Your task to perform on an android device: Open the calendar app, open the side menu, and click the "Day" option Image 0: 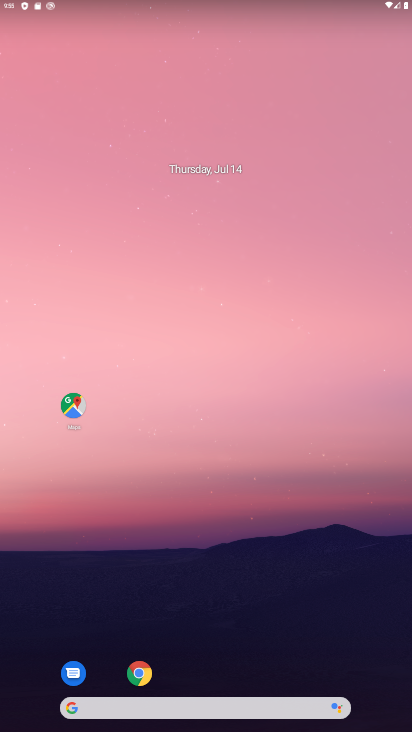
Step 0: drag from (192, 673) to (135, 251)
Your task to perform on an android device: Open the calendar app, open the side menu, and click the "Day" option Image 1: 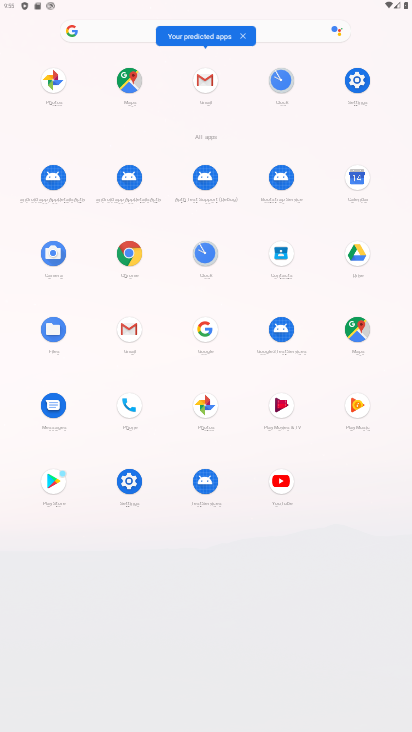
Step 1: click (352, 188)
Your task to perform on an android device: Open the calendar app, open the side menu, and click the "Day" option Image 2: 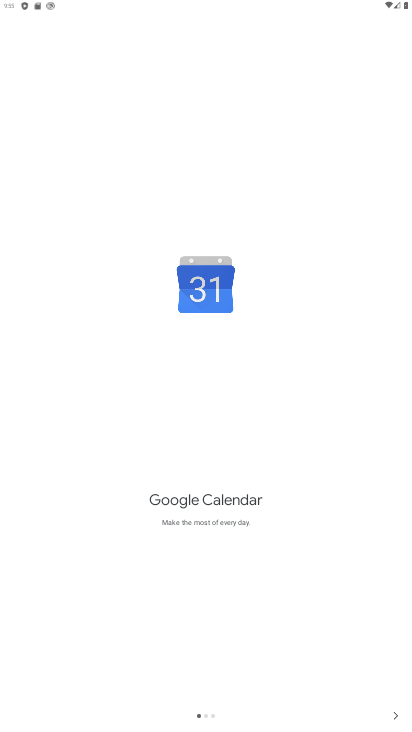
Step 2: click (392, 709)
Your task to perform on an android device: Open the calendar app, open the side menu, and click the "Day" option Image 3: 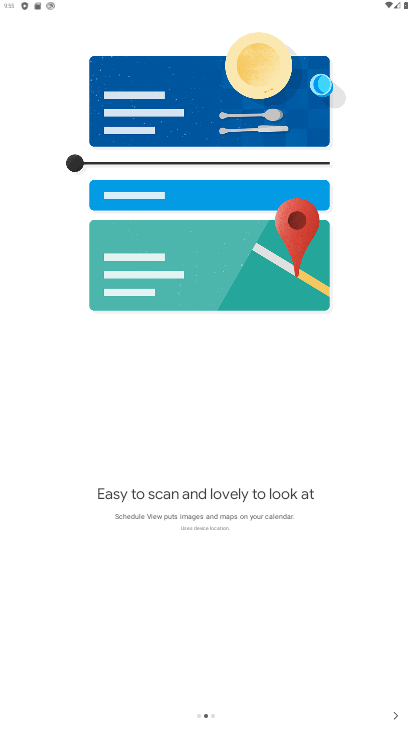
Step 3: click (392, 709)
Your task to perform on an android device: Open the calendar app, open the side menu, and click the "Day" option Image 4: 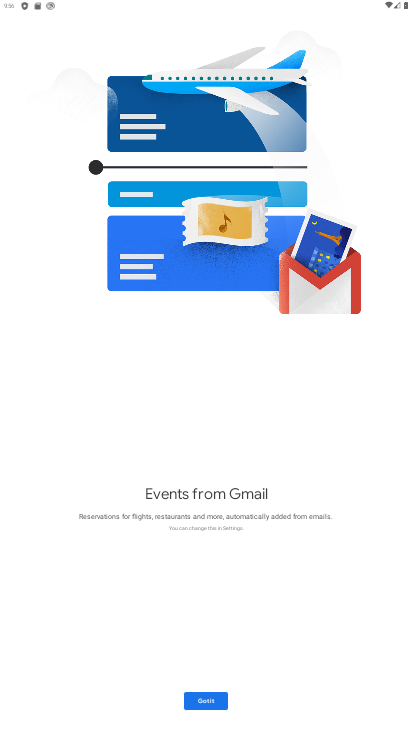
Step 4: click (224, 693)
Your task to perform on an android device: Open the calendar app, open the side menu, and click the "Day" option Image 5: 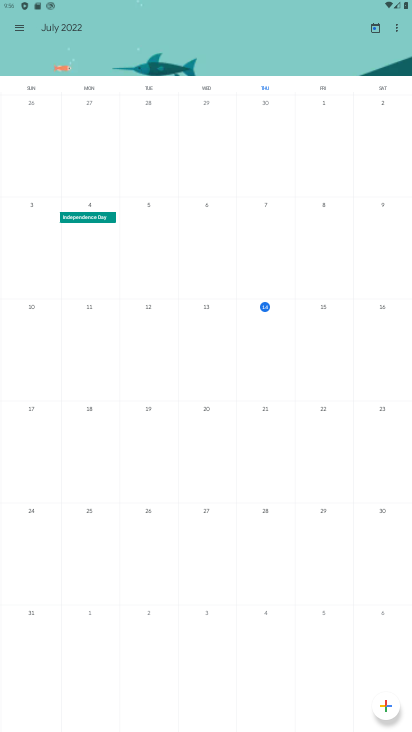
Step 5: click (14, 28)
Your task to perform on an android device: Open the calendar app, open the side menu, and click the "Day" option Image 6: 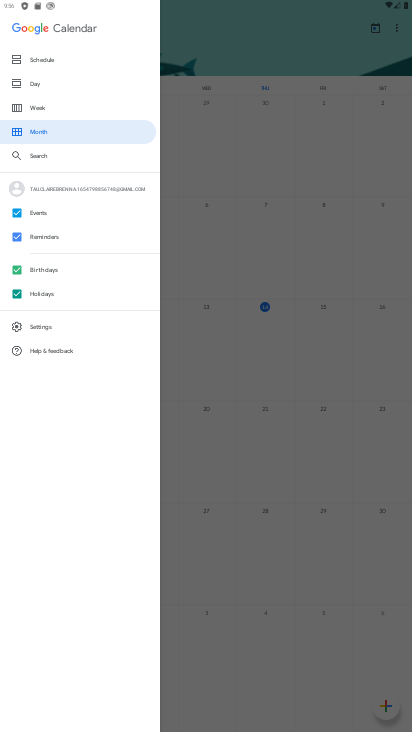
Step 6: click (42, 78)
Your task to perform on an android device: Open the calendar app, open the side menu, and click the "Day" option Image 7: 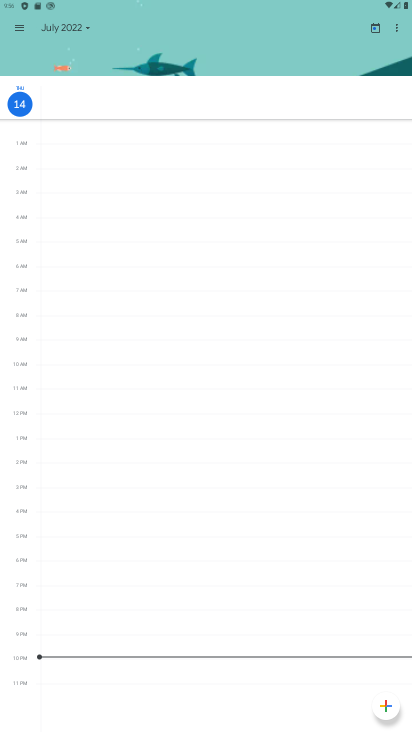
Step 7: task complete